Your task to perform on an android device: Go to accessibility settings Image 0: 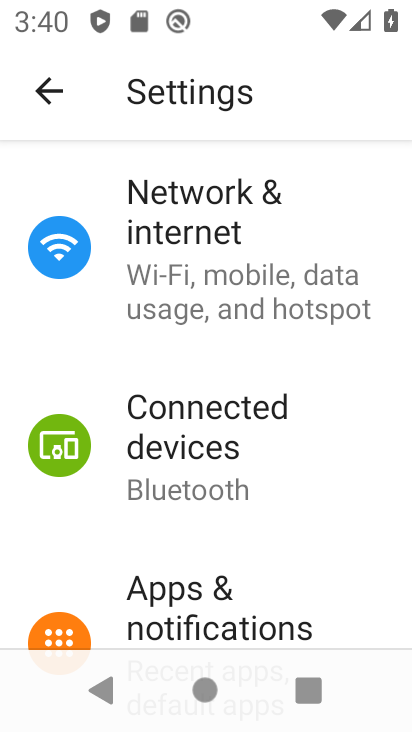
Step 0: drag from (249, 584) to (256, 94)
Your task to perform on an android device: Go to accessibility settings Image 1: 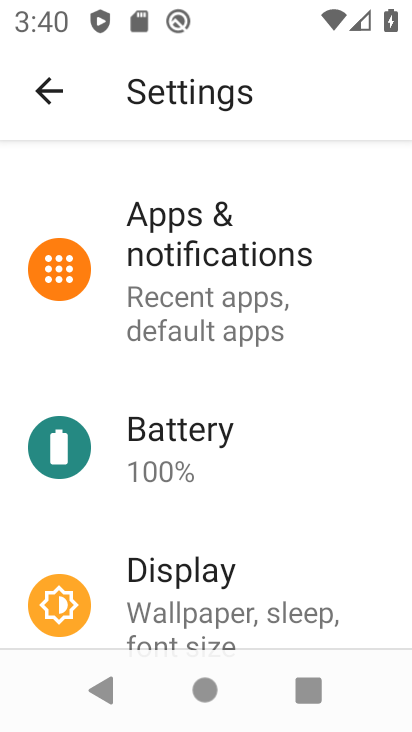
Step 1: drag from (218, 449) to (209, 170)
Your task to perform on an android device: Go to accessibility settings Image 2: 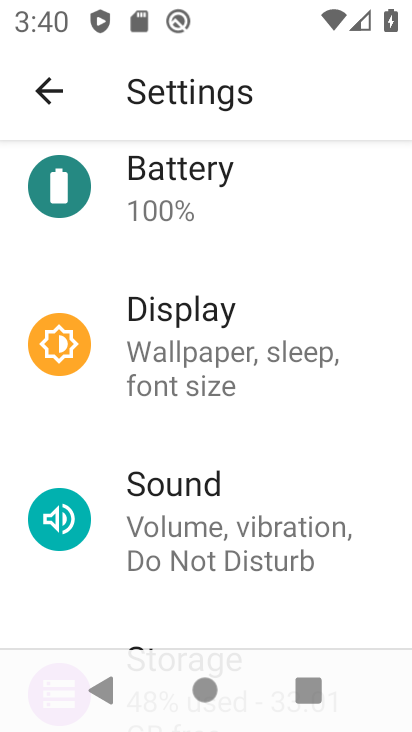
Step 2: drag from (199, 599) to (227, 226)
Your task to perform on an android device: Go to accessibility settings Image 3: 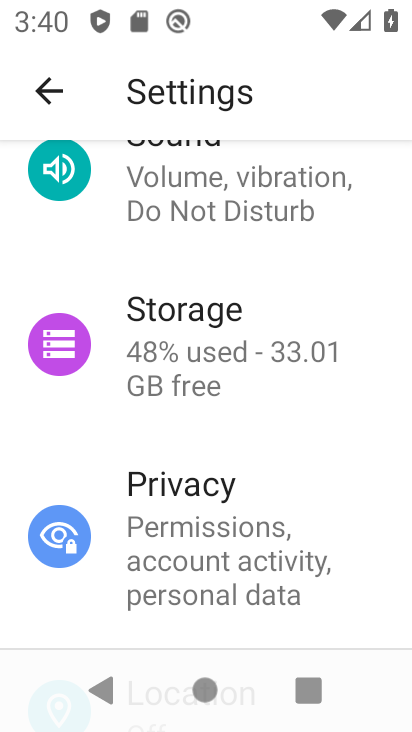
Step 3: drag from (190, 619) to (171, 48)
Your task to perform on an android device: Go to accessibility settings Image 4: 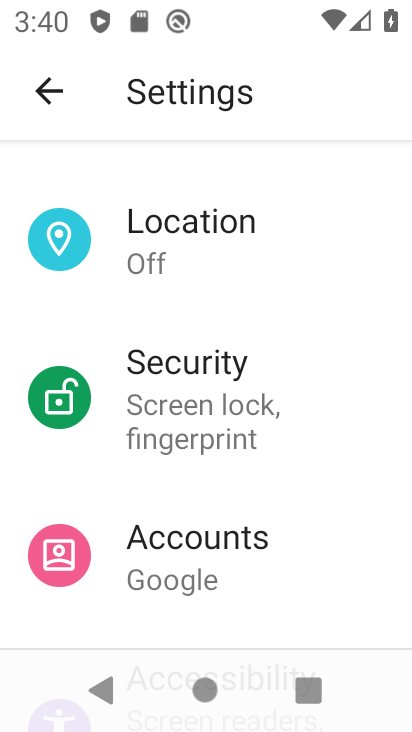
Step 4: drag from (173, 457) to (184, 169)
Your task to perform on an android device: Go to accessibility settings Image 5: 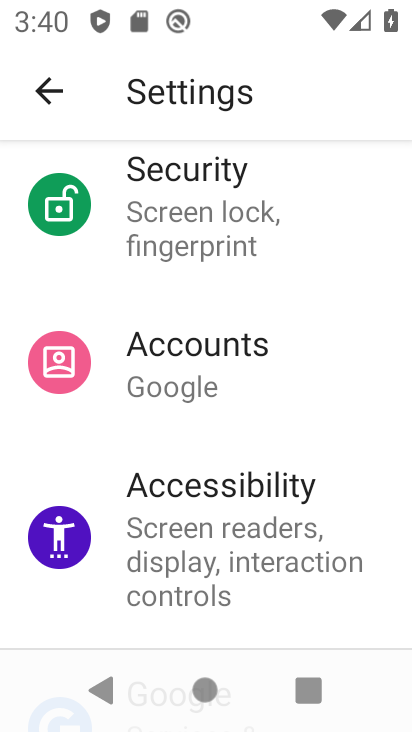
Step 5: click (194, 522)
Your task to perform on an android device: Go to accessibility settings Image 6: 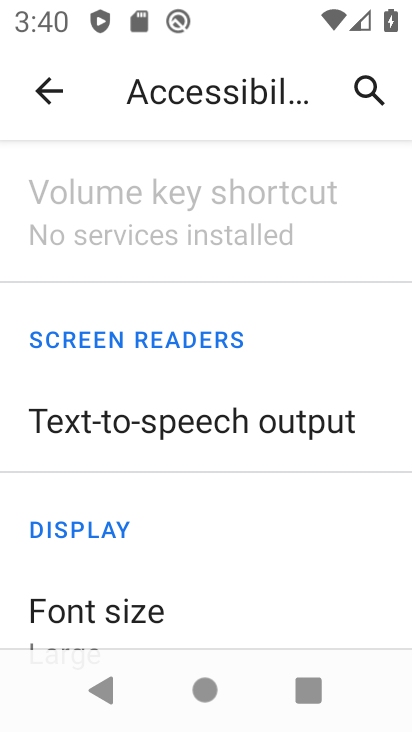
Step 6: task complete